Your task to perform on an android device: Go to wifi settings Image 0: 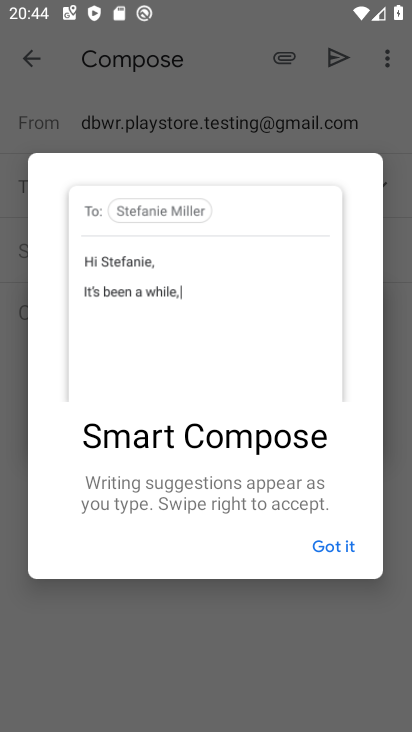
Step 0: press home button
Your task to perform on an android device: Go to wifi settings Image 1: 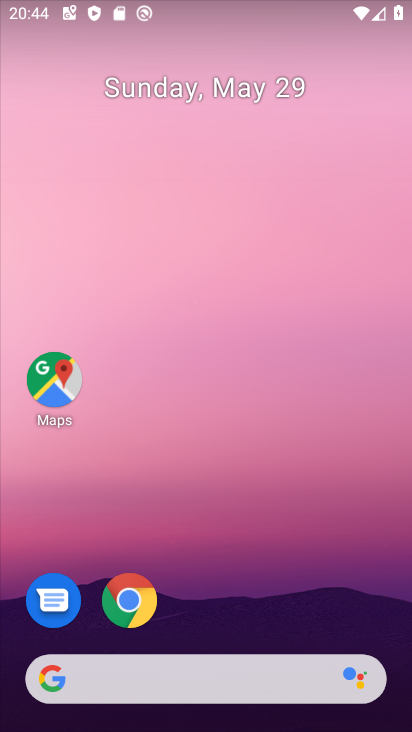
Step 1: drag from (323, 592) to (280, 265)
Your task to perform on an android device: Go to wifi settings Image 2: 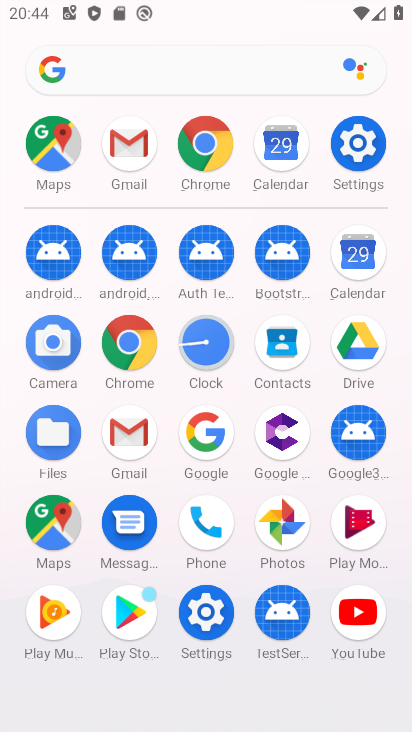
Step 2: click (212, 638)
Your task to perform on an android device: Go to wifi settings Image 3: 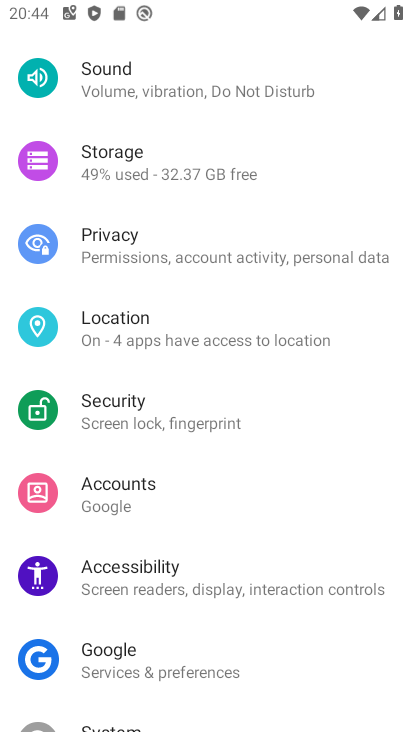
Step 3: drag from (246, 111) to (193, 576)
Your task to perform on an android device: Go to wifi settings Image 4: 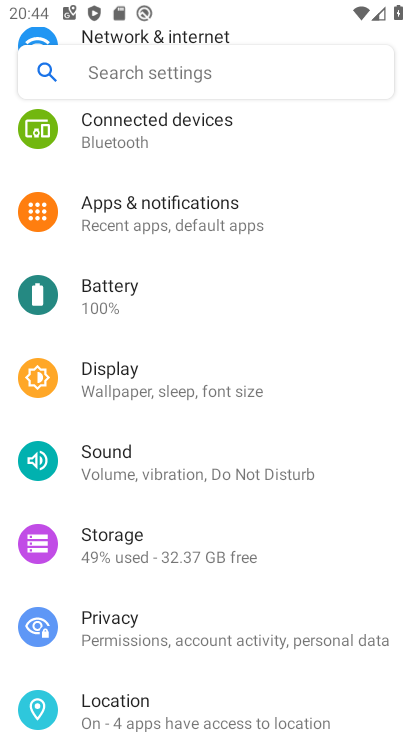
Step 4: drag from (230, 218) to (232, 573)
Your task to perform on an android device: Go to wifi settings Image 5: 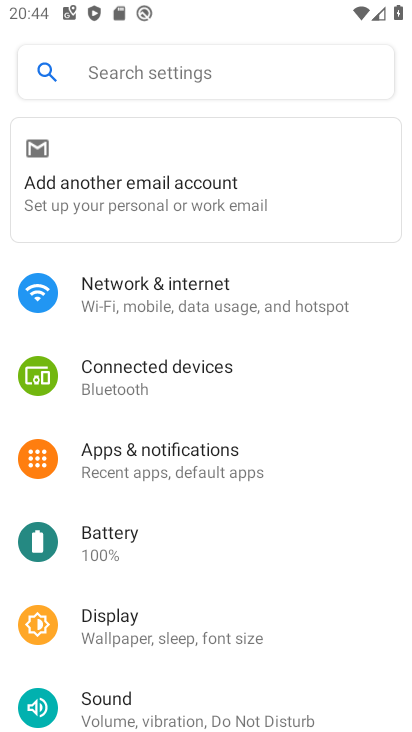
Step 5: click (246, 292)
Your task to perform on an android device: Go to wifi settings Image 6: 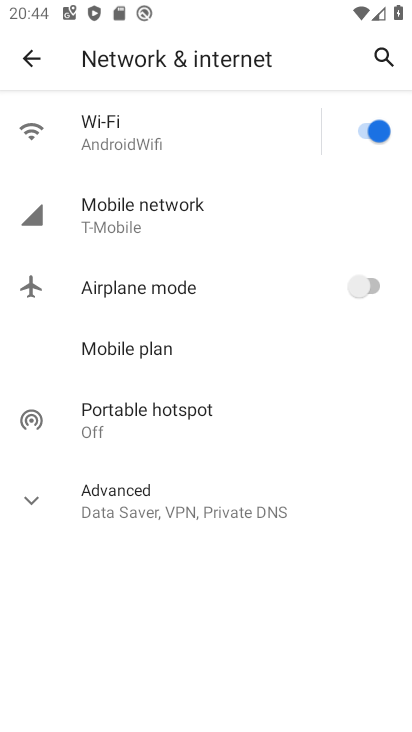
Step 6: click (186, 139)
Your task to perform on an android device: Go to wifi settings Image 7: 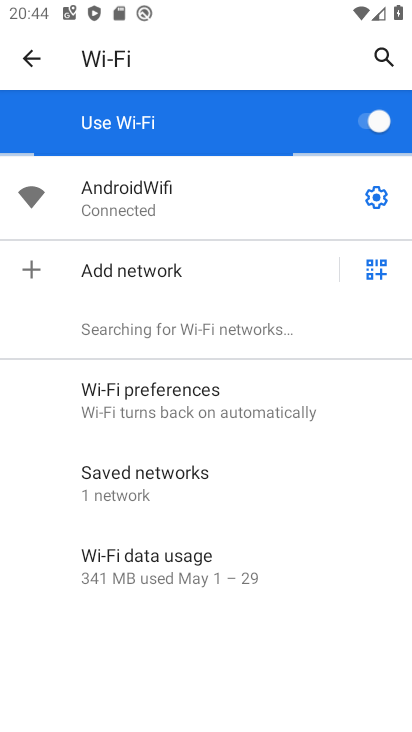
Step 7: click (367, 198)
Your task to perform on an android device: Go to wifi settings Image 8: 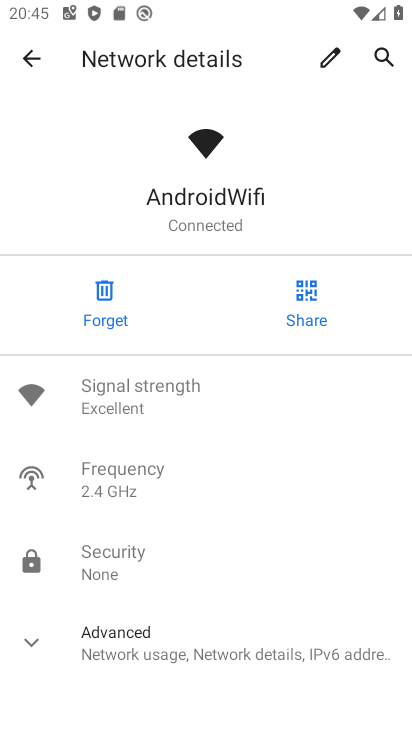
Step 8: task complete